Your task to perform on an android device: search for starred emails in the gmail app Image 0: 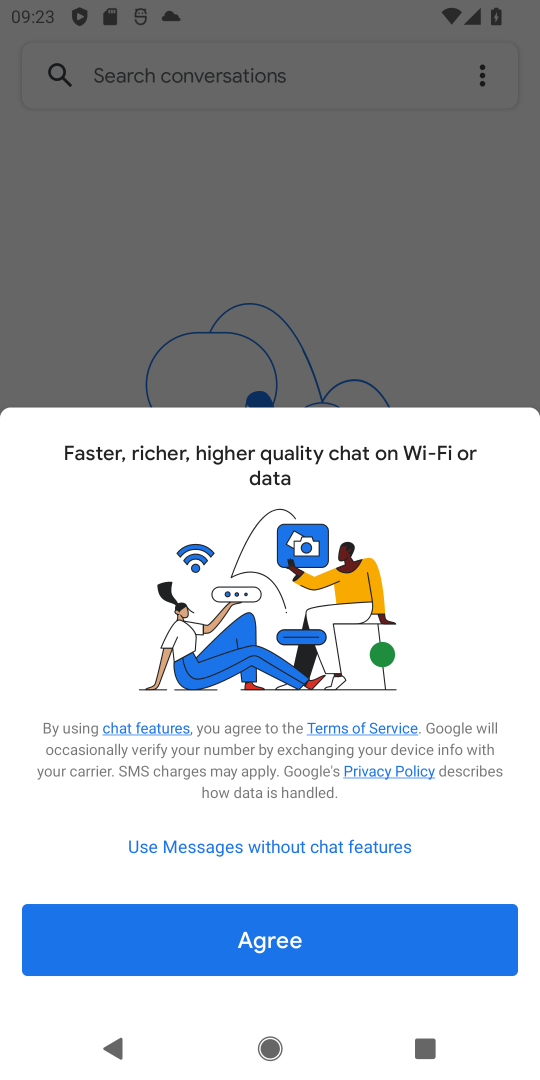
Step 0: press home button
Your task to perform on an android device: search for starred emails in the gmail app Image 1: 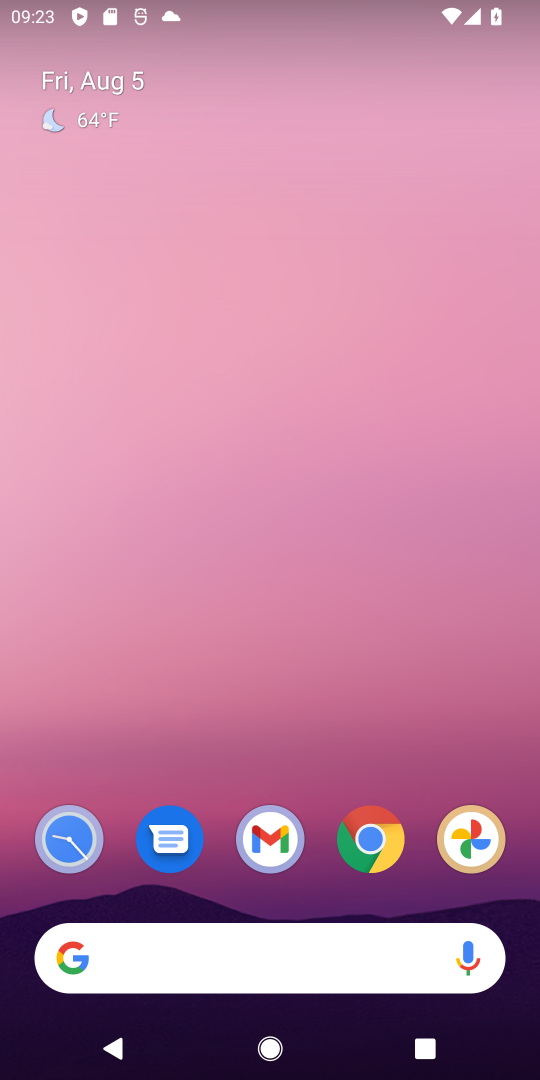
Step 1: drag from (320, 910) to (306, 109)
Your task to perform on an android device: search for starred emails in the gmail app Image 2: 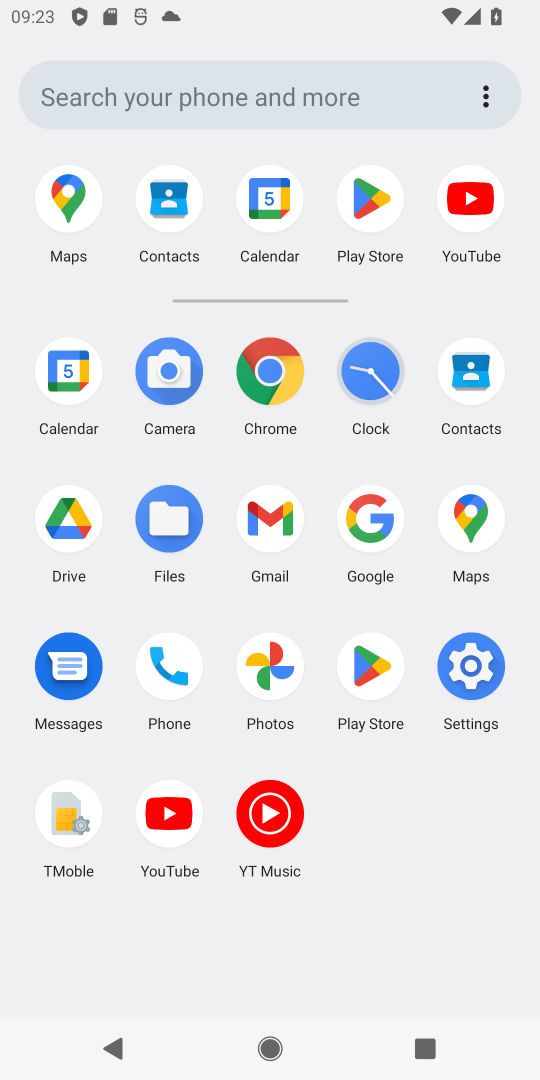
Step 2: click (278, 515)
Your task to perform on an android device: search for starred emails in the gmail app Image 3: 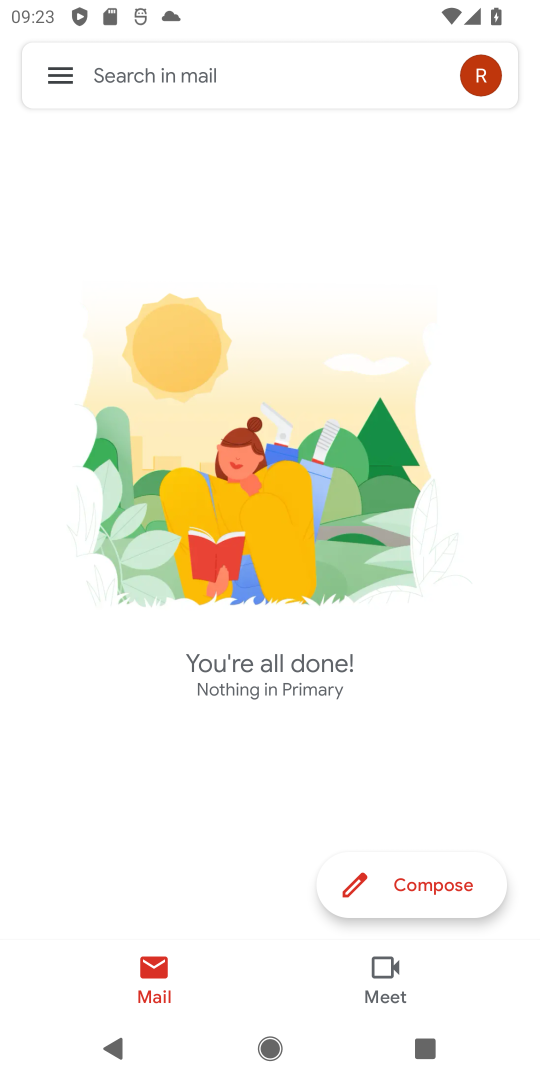
Step 3: click (58, 84)
Your task to perform on an android device: search for starred emails in the gmail app Image 4: 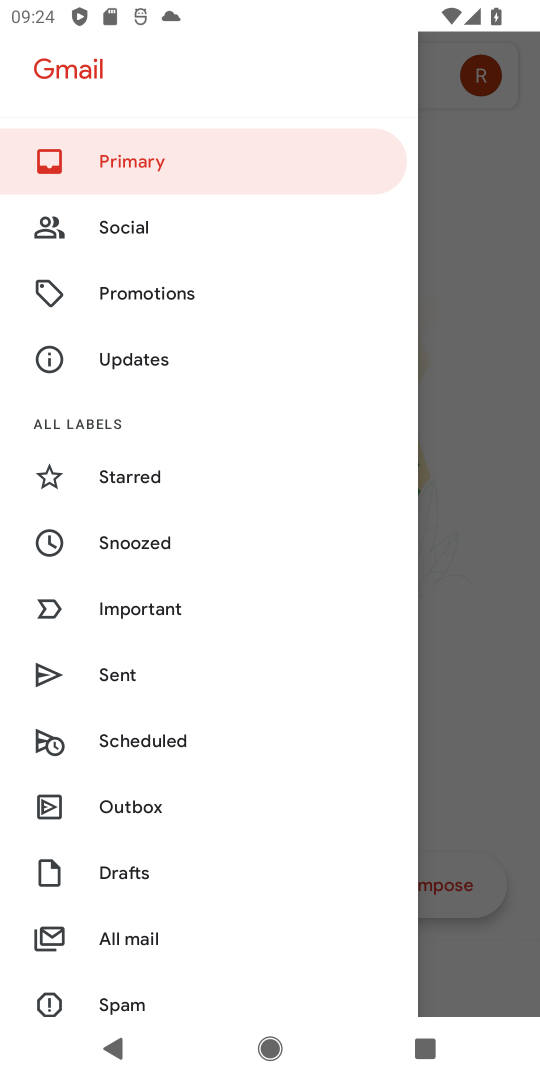
Step 4: click (137, 471)
Your task to perform on an android device: search for starred emails in the gmail app Image 5: 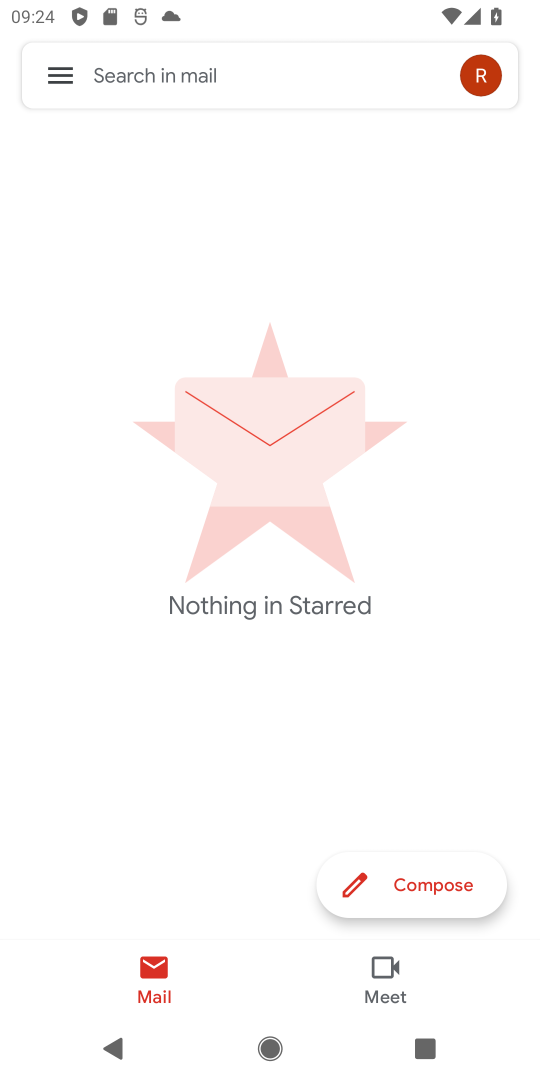
Step 5: task complete